Your task to perform on an android device: Open the web browser Image 0: 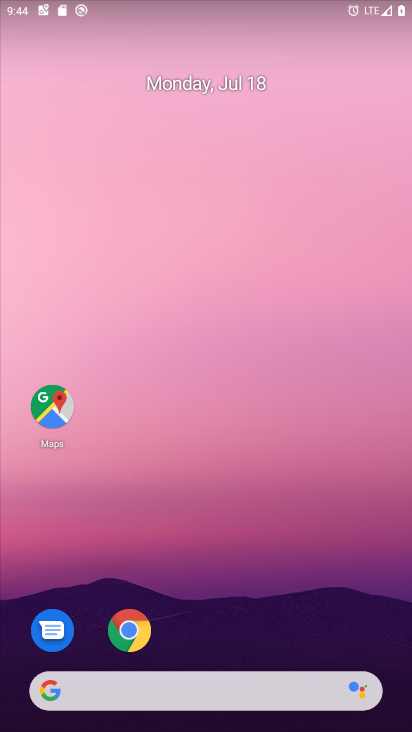
Step 0: click (141, 626)
Your task to perform on an android device: Open the web browser Image 1: 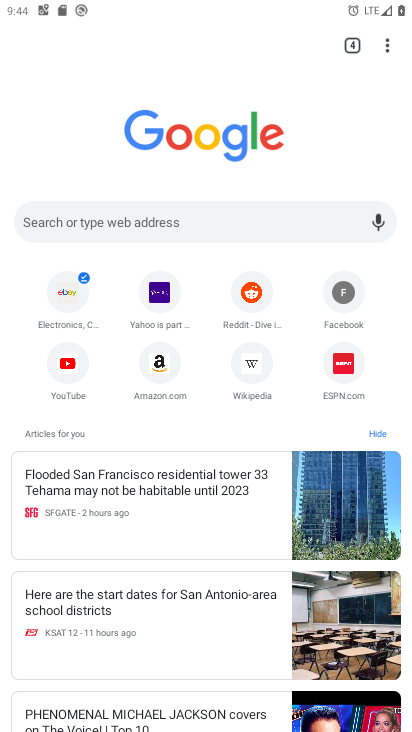
Step 1: task complete